Your task to perform on an android device: Open the calendar and show me this week's events Image 0: 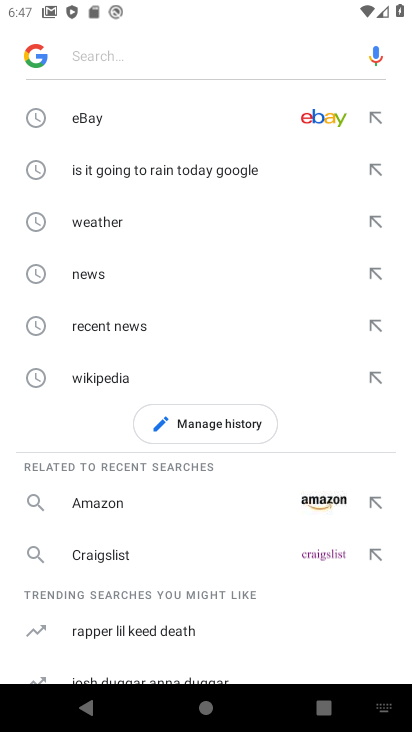
Step 0: press home button
Your task to perform on an android device: Open the calendar and show me this week's events Image 1: 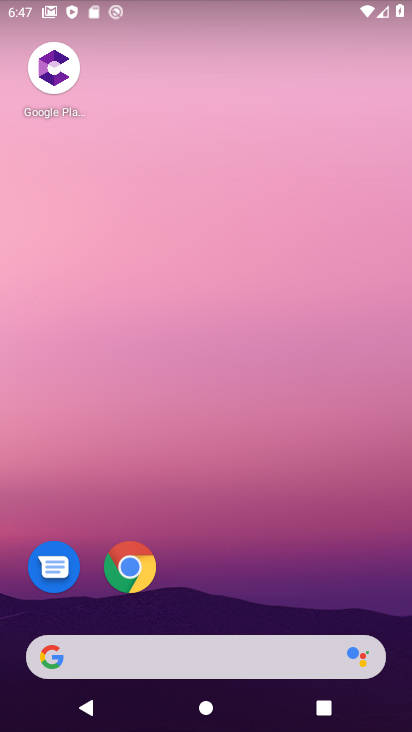
Step 1: drag from (257, 562) to (328, 90)
Your task to perform on an android device: Open the calendar and show me this week's events Image 2: 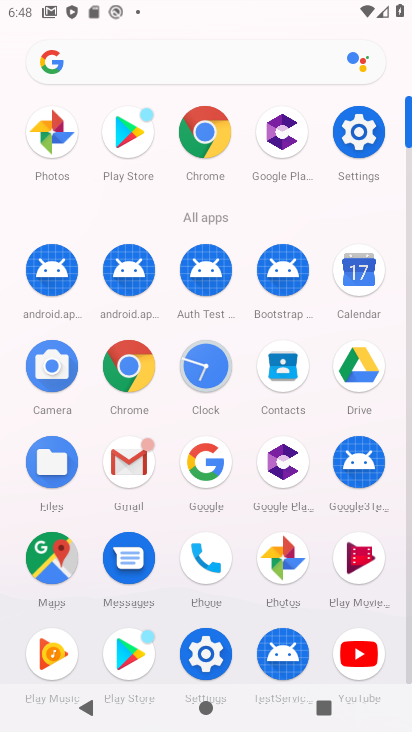
Step 2: click (359, 275)
Your task to perform on an android device: Open the calendar and show me this week's events Image 3: 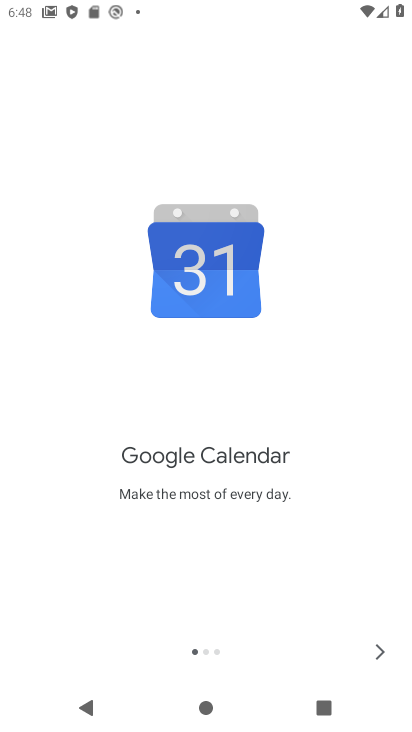
Step 3: click (379, 650)
Your task to perform on an android device: Open the calendar and show me this week's events Image 4: 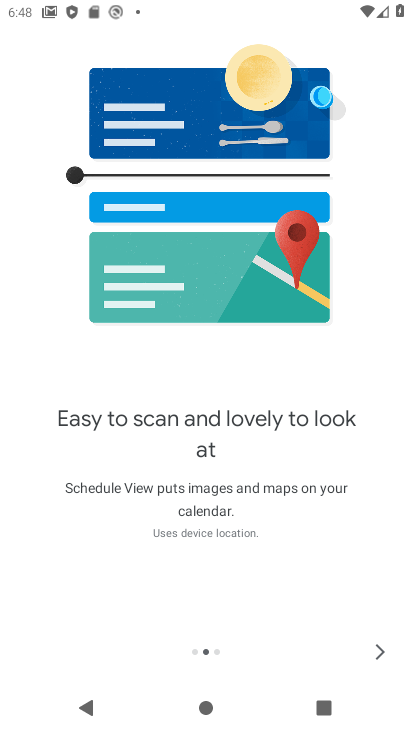
Step 4: click (379, 650)
Your task to perform on an android device: Open the calendar and show me this week's events Image 5: 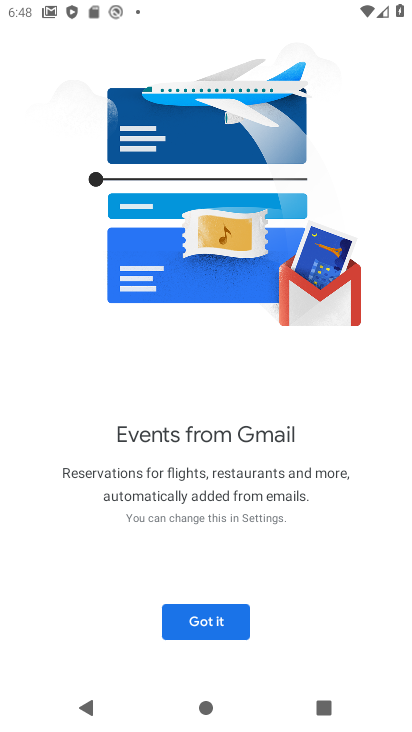
Step 5: click (203, 621)
Your task to perform on an android device: Open the calendar and show me this week's events Image 6: 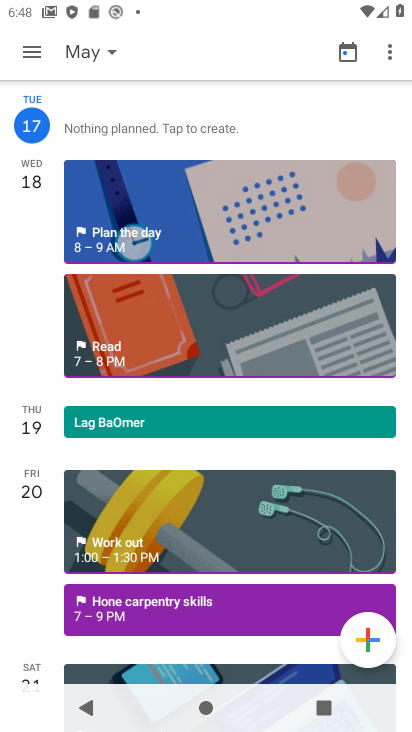
Step 6: task complete